Your task to perform on an android device: add a label to a message in the gmail app Image 0: 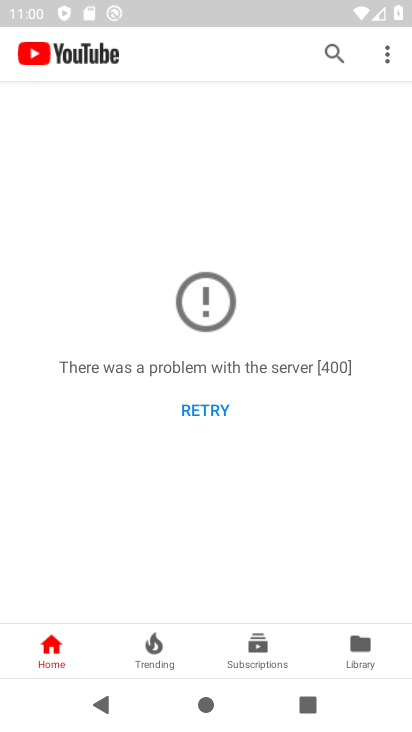
Step 0: press home button
Your task to perform on an android device: add a label to a message in the gmail app Image 1: 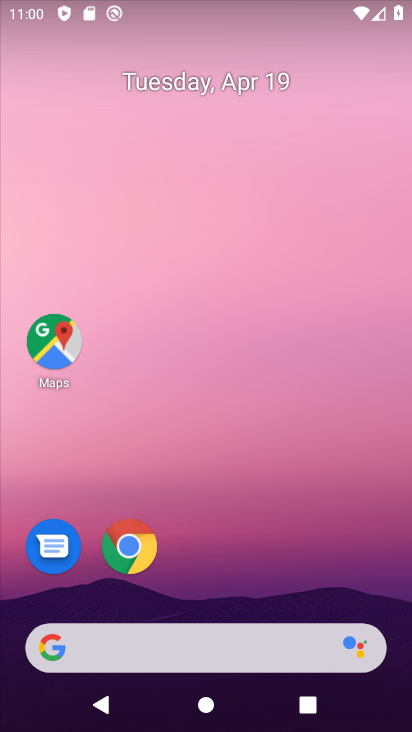
Step 1: drag from (284, 425) to (317, 92)
Your task to perform on an android device: add a label to a message in the gmail app Image 2: 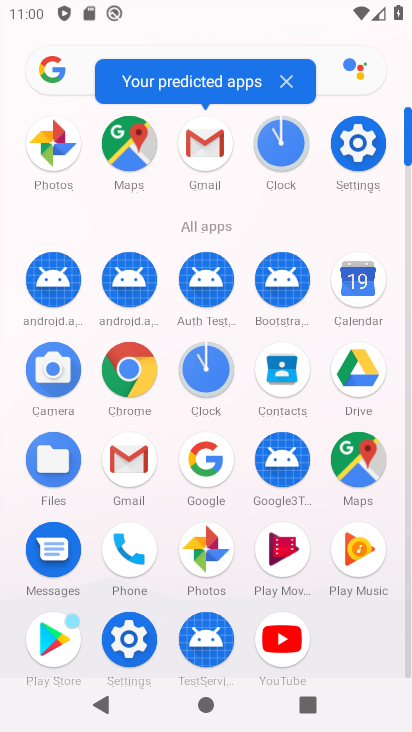
Step 2: click (126, 460)
Your task to perform on an android device: add a label to a message in the gmail app Image 3: 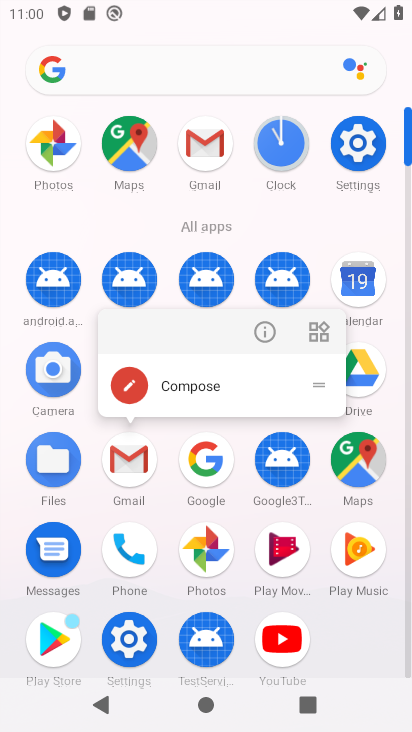
Step 3: click (132, 452)
Your task to perform on an android device: add a label to a message in the gmail app Image 4: 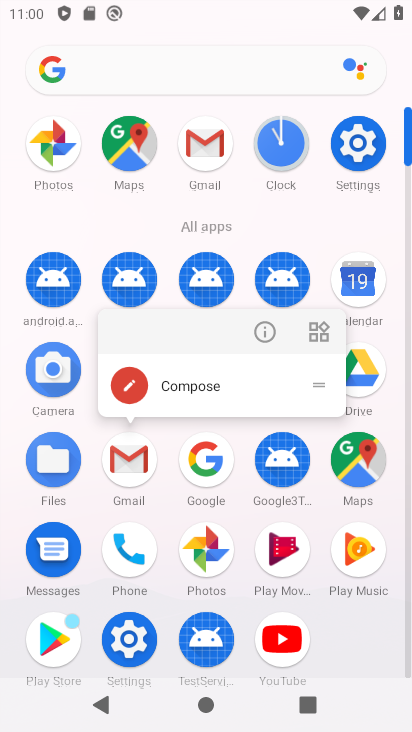
Step 4: click (125, 464)
Your task to perform on an android device: add a label to a message in the gmail app Image 5: 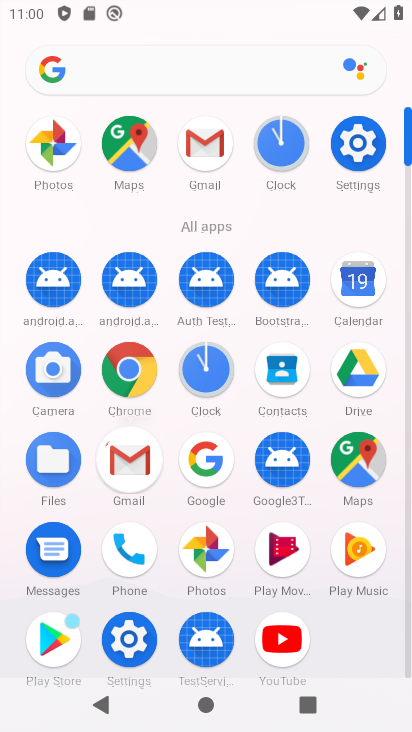
Step 5: click (125, 464)
Your task to perform on an android device: add a label to a message in the gmail app Image 6: 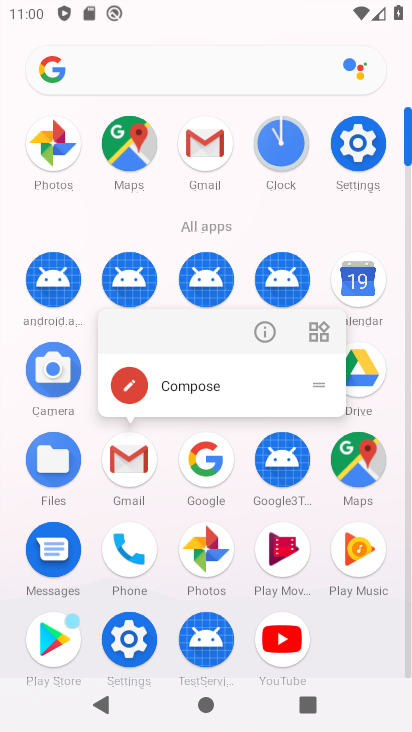
Step 6: click (125, 464)
Your task to perform on an android device: add a label to a message in the gmail app Image 7: 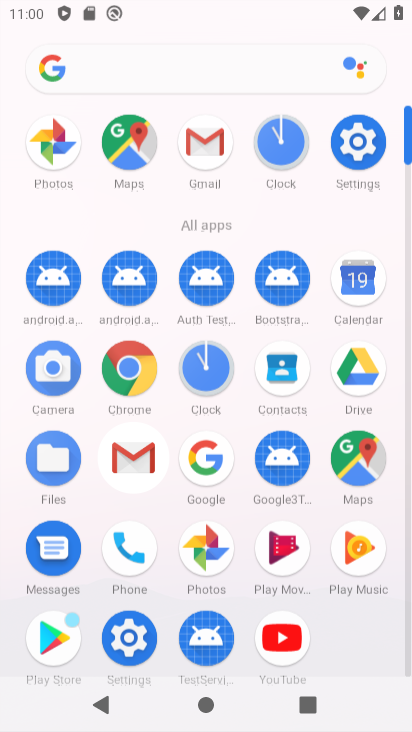
Step 7: click (128, 448)
Your task to perform on an android device: add a label to a message in the gmail app Image 8: 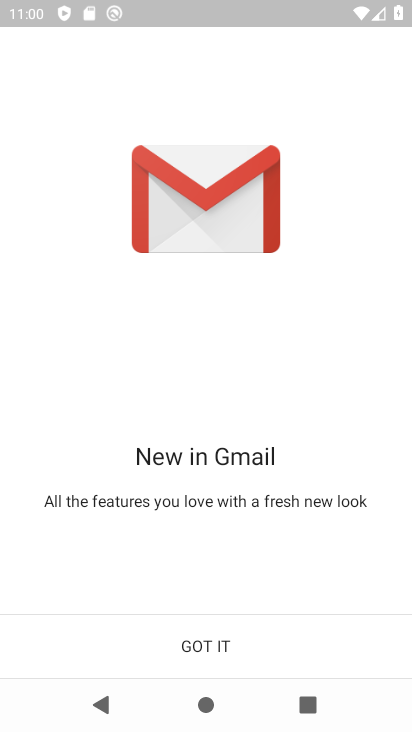
Step 8: click (197, 643)
Your task to perform on an android device: add a label to a message in the gmail app Image 9: 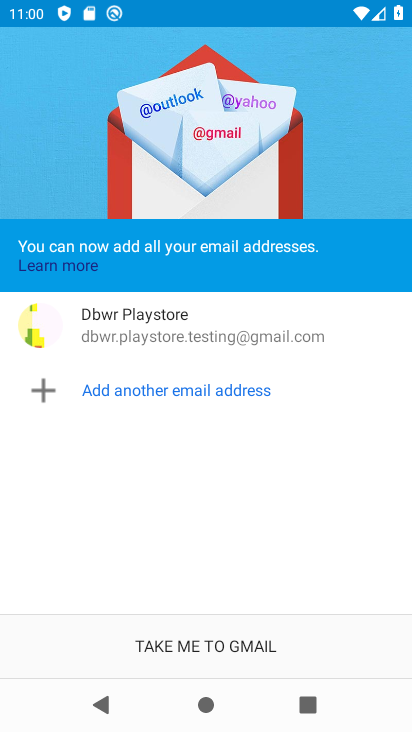
Step 9: click (182, 639)
Your task to perform on an android device: add a label to a message in the gmail app Image 10: 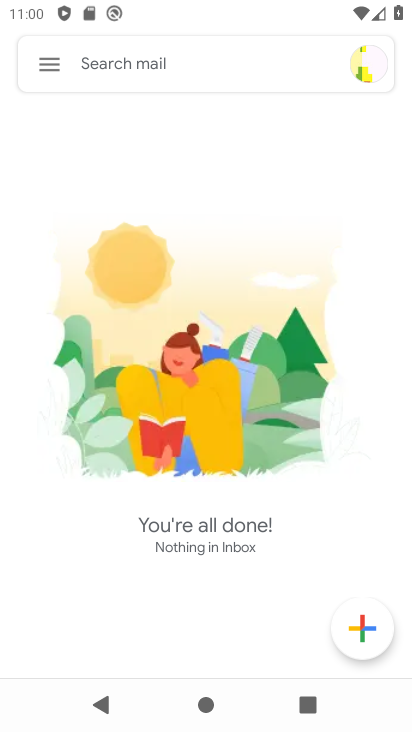
Step 10: task complete